Your task to perform on an android device: delete a single message in the gmail app Image 0: 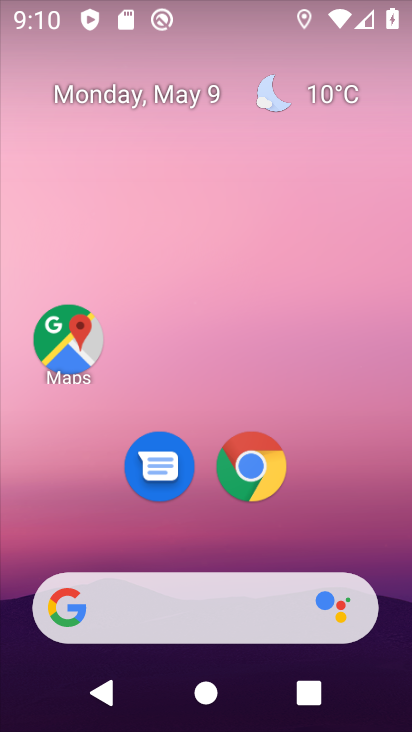
Step 0: drag from (284, 551) to (330, 54)
Your task to perform on an android device: delete a single message in the gmail app Image 1: 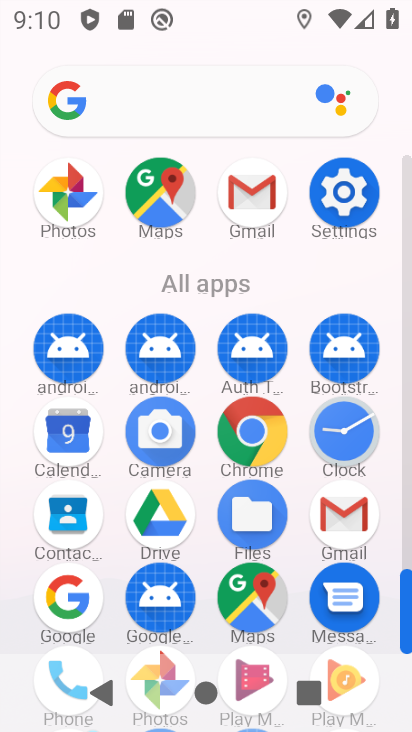
Step 1: click (242, 191)
Your task to perform on an android device: delete a single message in the gmail app Image 2: 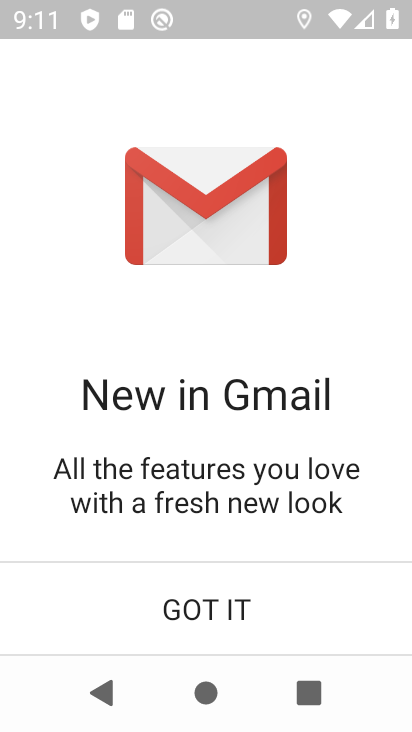
Step 2: click (219, 629)
Your task to perform on an android device: delete a single message in the gmail app Image 3: 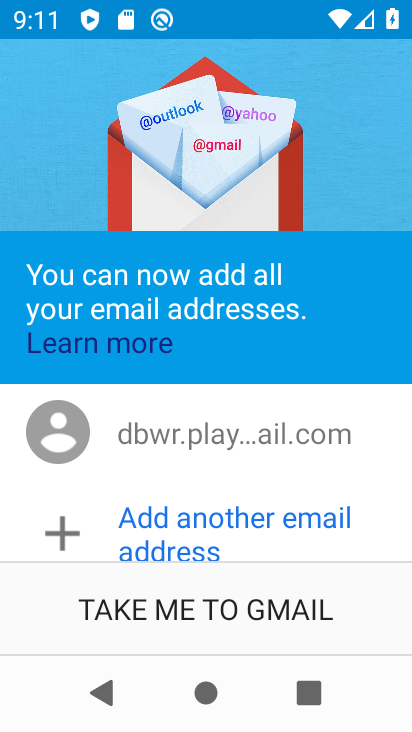
Step 3: click (265, 612)
Your task to perform on an android device: delete a single message in the gmail app Image 4: 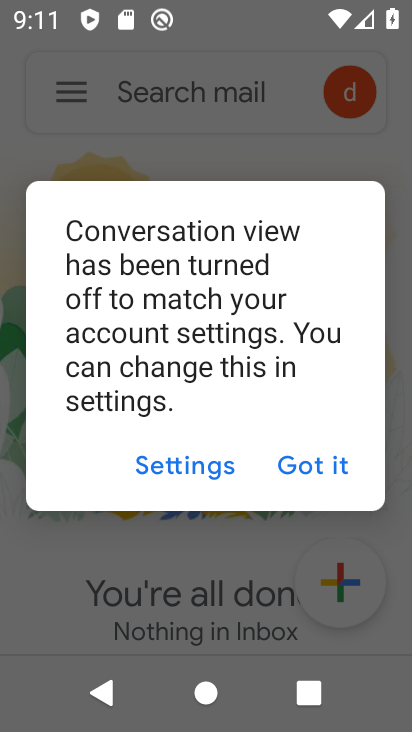
Step 4: click (320, 468)
Your task to perform on an android device: delete a single message in the gmail app Image 5: 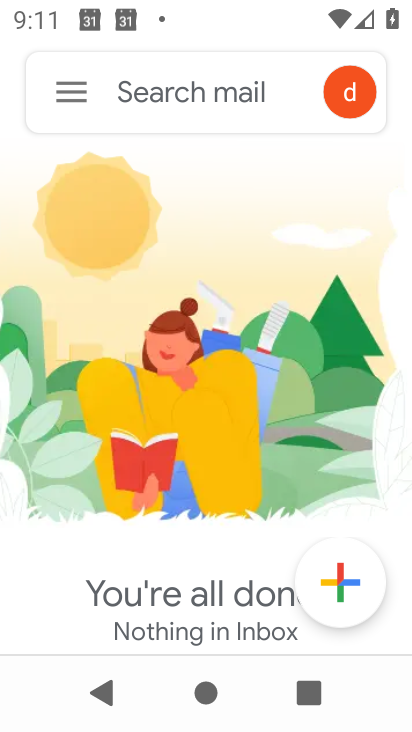
Step 5: click (66, 92)
Your task to perform on an android device: delete a single message in the gmail app Image 6: 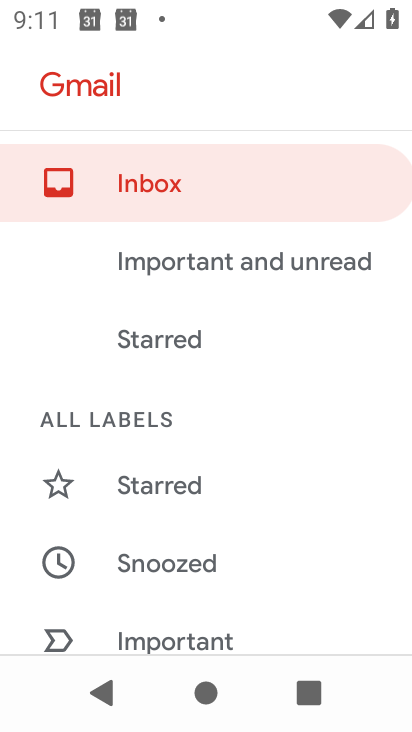
Step 6: drag from (213, 617) to (272, 172)
Your task to perform on an android device: delete a single message in the gmail app Image 7: 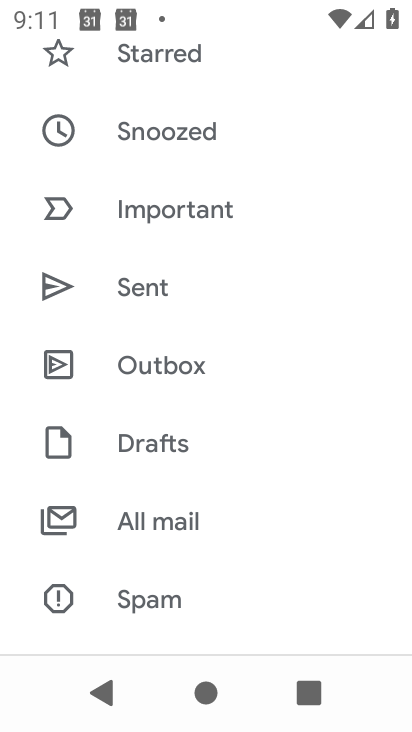
Step 7: click (207, 531)
Your task to perform on an android device: delete a single message in the gmail app Image 8: 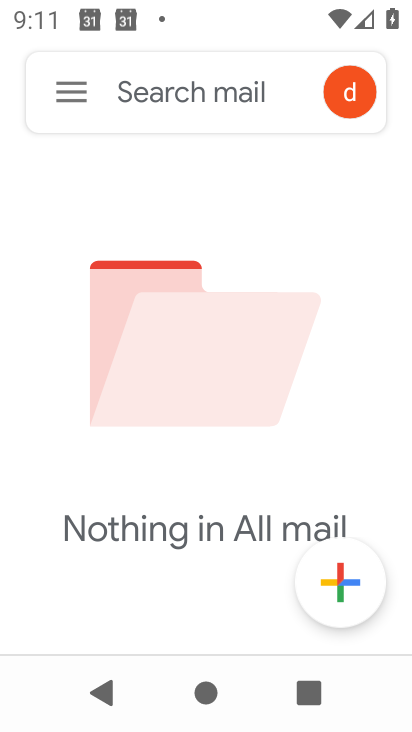
Step 8: task complete